Your task to perform on an android device: When is my next meeting? Image 0: 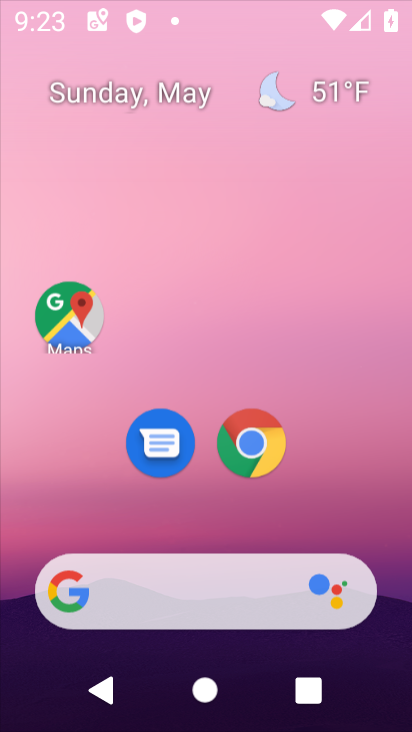
Step 0: drag from (323, 502) to (190, 38)
Your task to perform on an android device: When is my next meeting? Image 1: 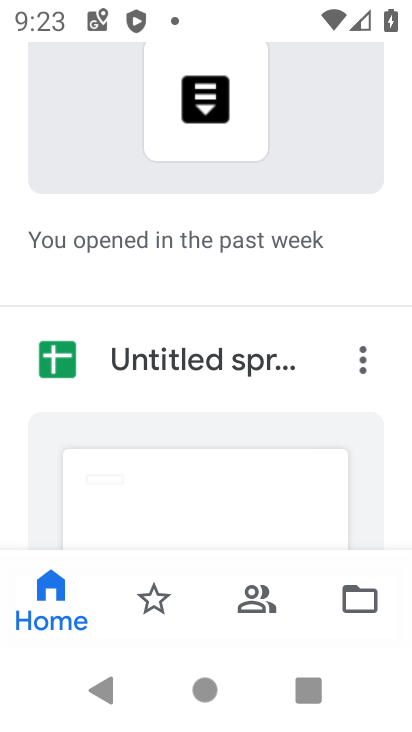
Step 1: press home button
Your task to perform on an android device: When is my next meeting? Image 2: 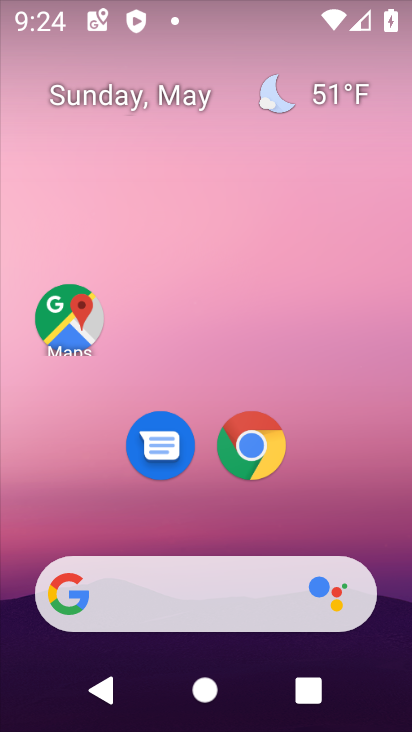
Step 2: drag from (347, 506) to (263, 157)
Your task to perform on an android device: When is my next meeting? Image 3: 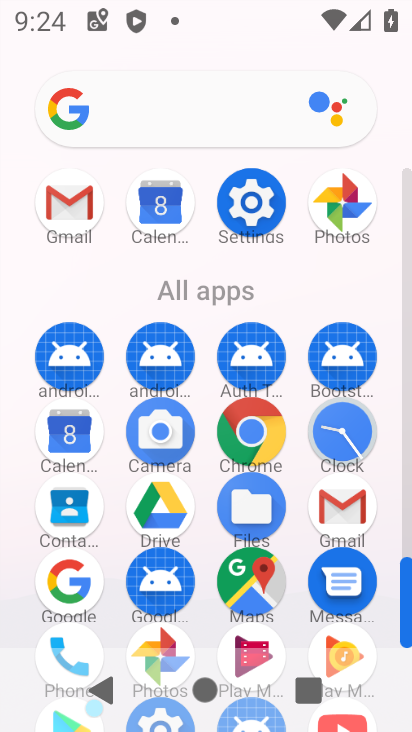
Step 3: click (69, 433)
Your task to perform on an android device: When is my next meeting? Image 4: 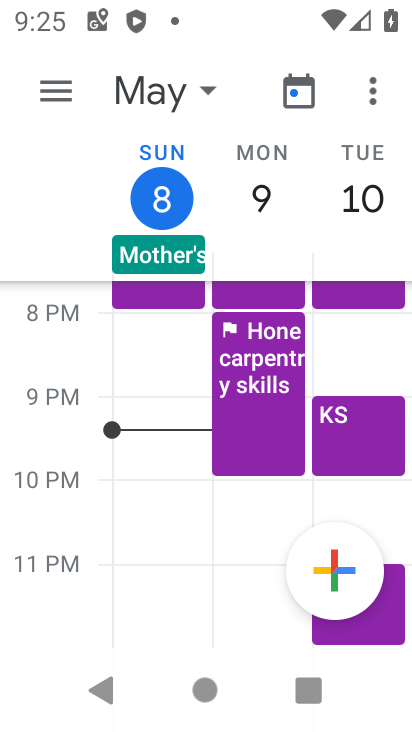
Step 4: task complete